Your task to perform on an android device: Show me productivity apps on the Play Store Image 0: 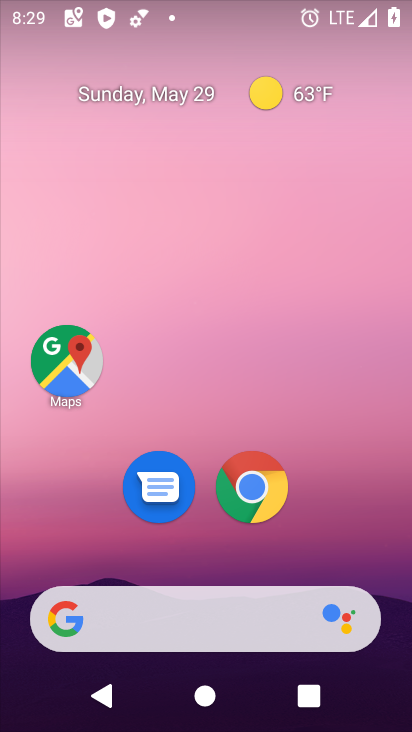
Step 0: drag from (242, 617) to (265, 53)
Your task to perform on an android device: Show me productivity apps on the Play Store Image 1: 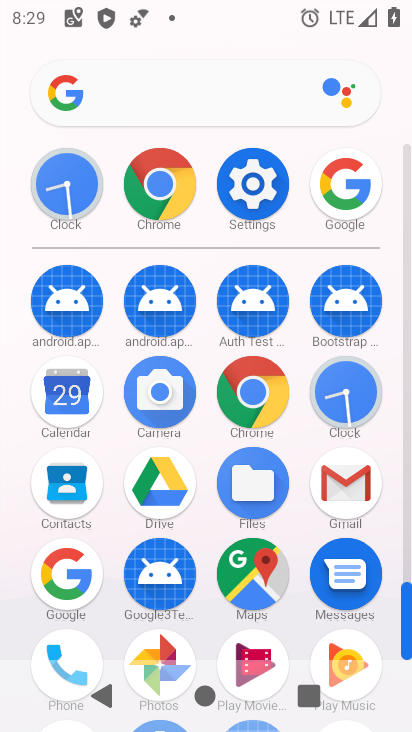
Step 1: drag from (240, 475) to (288, 133)
Your task to perform on an android device: Show me productivity apps on the Play Store Image 2: 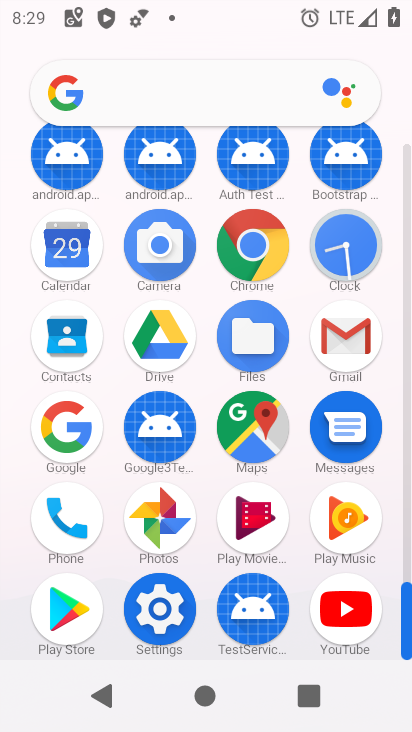
Step 2: click (79, 612)
Your task to perform on an android device: Show me productivity apps on the Play Store Image 3: 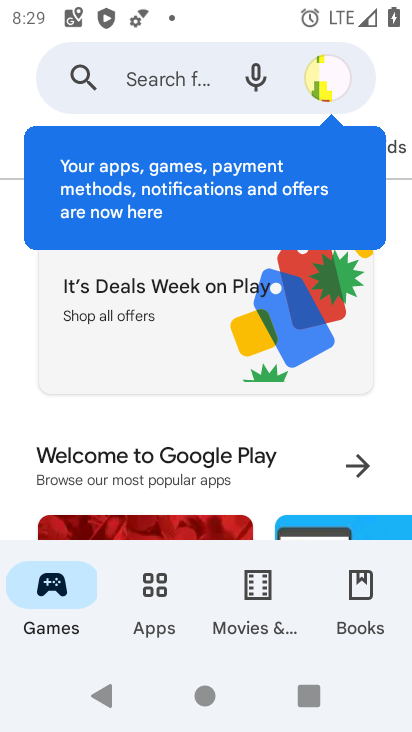
Step 3: click (162, 74)
Your task to perform on an android device: Show me productivity apps on the Play Store Image 4: 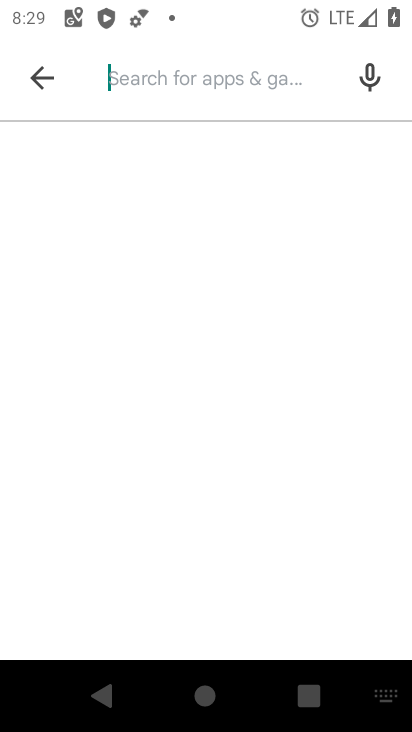
Step 4: type "productivity aaps"
Your task to perform on an android device: Show me productivity apps on the Play Store Image 5: 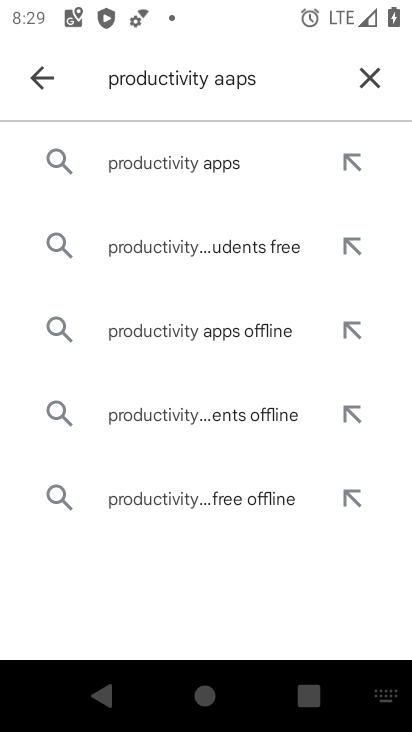
Step 5: click (219, 173)
Your task to perform on an android device: Show me productivity apps on the Play Store Image 6: 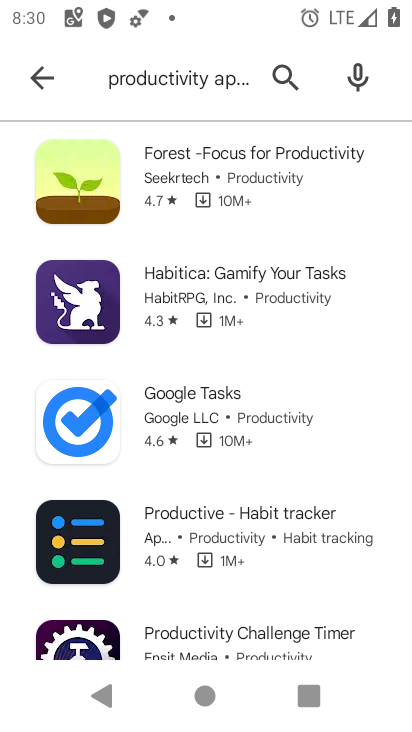
Step 6: task complete